Your task to perform on an android device: move an email to a new category in the gmail app Image 0: 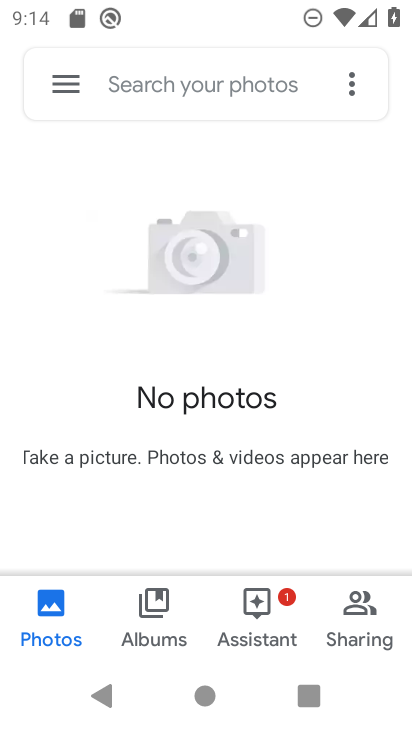
Step 0: press home button
Your task to perform on an android device: move an email to a new category in the gmail app Image 1: 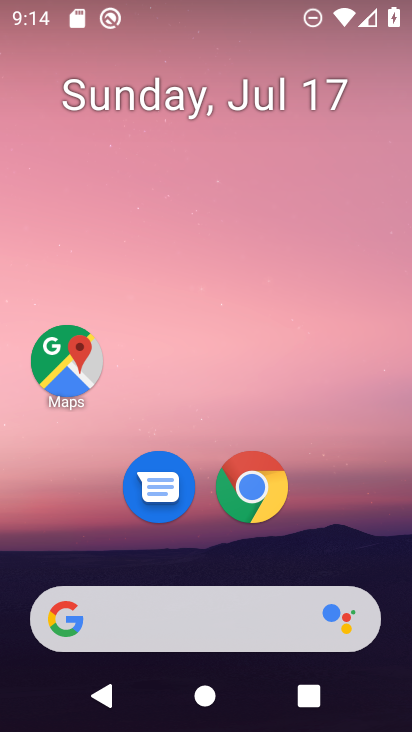
Step 1: drag from (340, 522) to (310, 3)
Your task to perform on an android device: move an email to a new category in the gmail app Image 2: 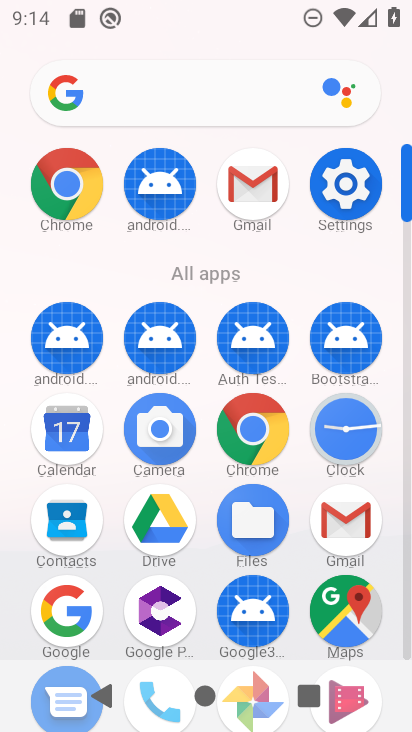
Step 2: click (264, 183)
Your task to perform on an android device: move an email to a new category in the gmail app Image 3: 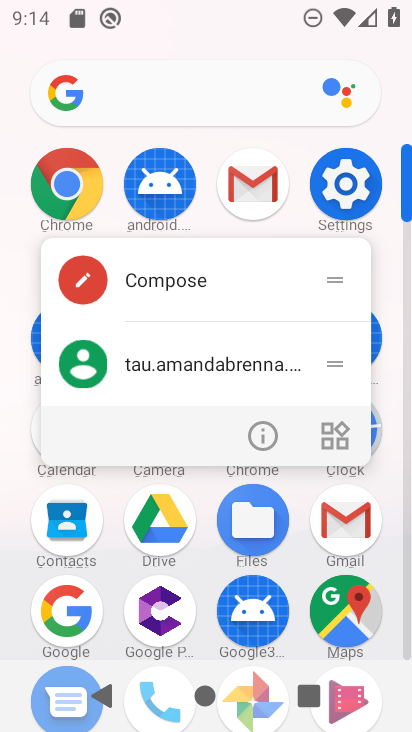
Step 3: click (246, 177)
Your task to perform on an android device: move an email to a new category in the gmail app Image 4: 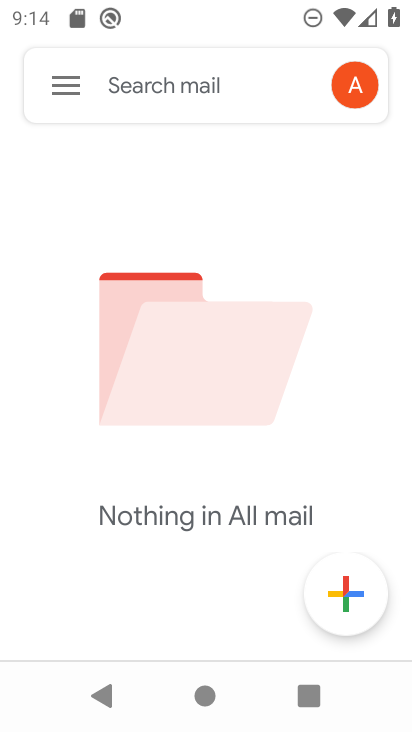
Step 4: click (68, 87)
Your task to perform on an android device: move an email to a new category in the gmail app Image 5: 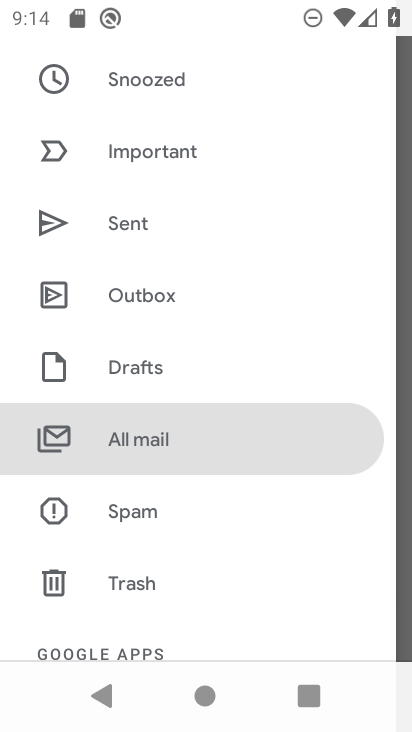
Step 5: click (124, 443)
Your task to perform on an android device: move an email to a new category in the gmail app Image 6: 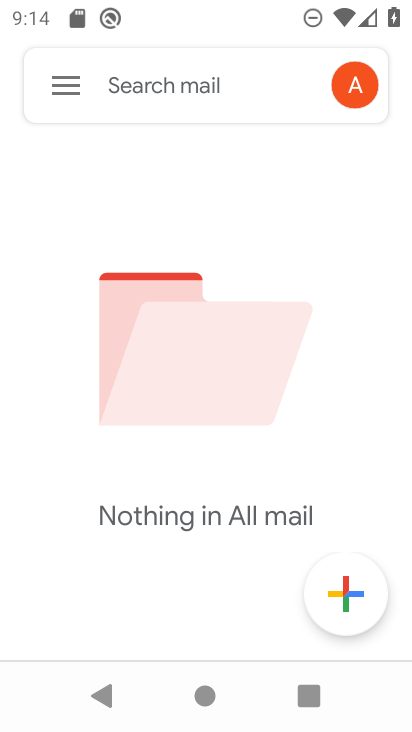
Step 6: task complete